Your task to perform on an android device: Open Google Chrome and open the bookmarks view Image 0: 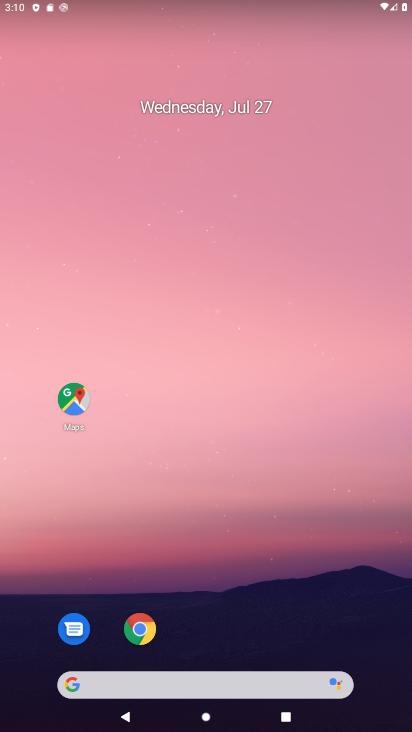
Step 0: press home button
Your task to perform on an android device: Open Google Chrome and open the bookmarks view Image 1: 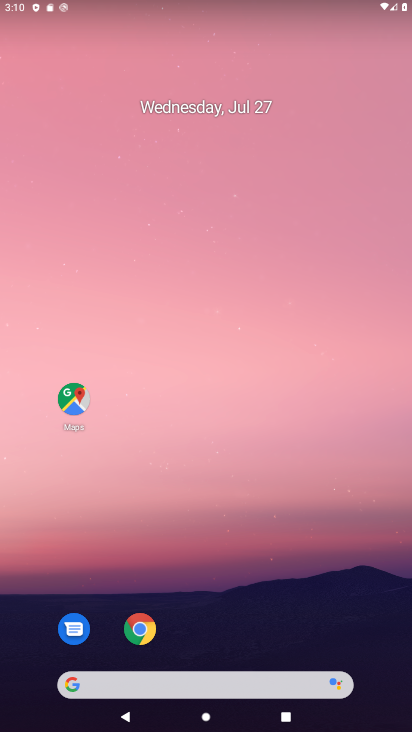
Step 1: click (143, 621)
Your task to perform on an android device: Open Google Chrome and open the bookmarks view Image 2: 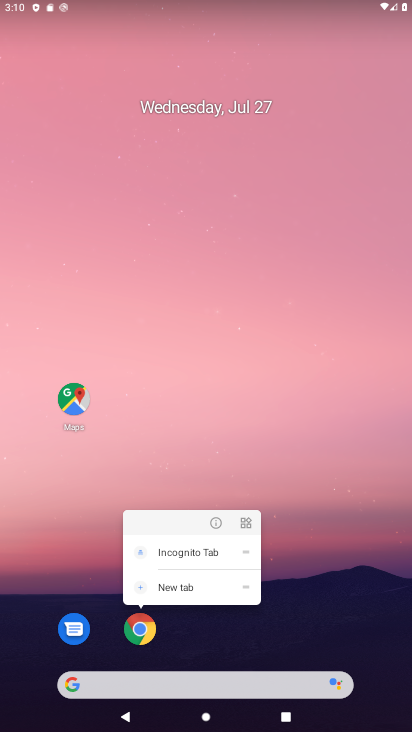
Step 2: click (139, 626)
Your task to perform on an android device: Open Google Chrome and open the bookmarks view Image 3: 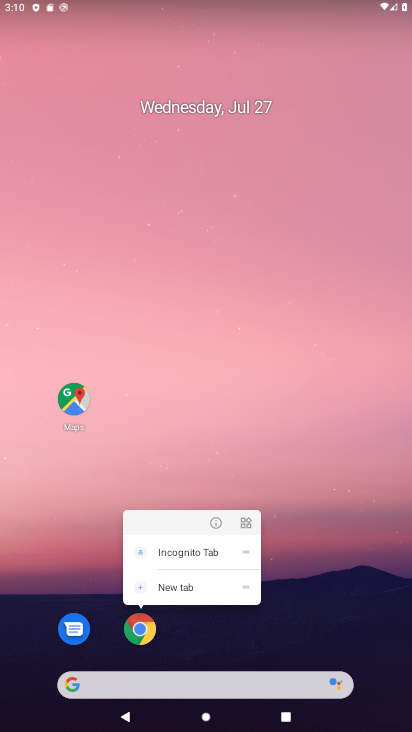
Step 3: click (264, 635)
Your task to perform on an android device: Open Google Chrome and open the bookmarks view Image 4: 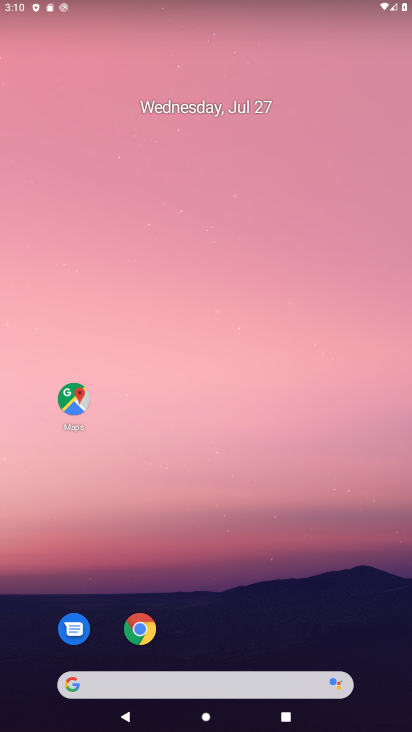
Step 4: drag from (295, 648) to (303, 92)
Your task to perform on an android device: Open Google Chrome and open the bookmarks view Image 5: 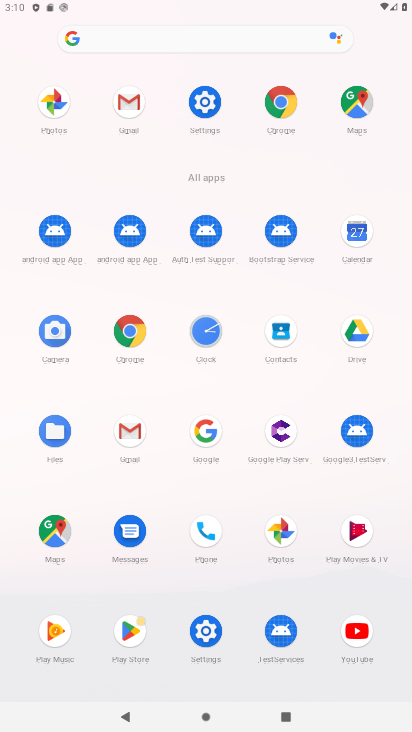
Step 5: click (120, 338)
Your task to perform on an android device: Open Google Chrome and open the bookmarks view Image 6: 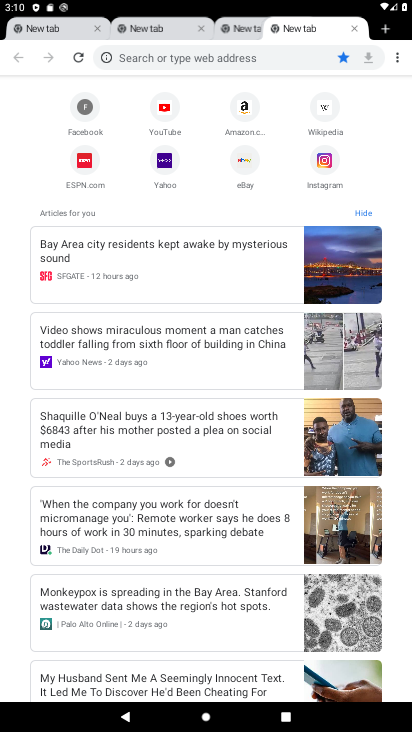
Step 6: click (395, 55)
Your task to perform on an android device: Open Google Chrome and open the bookmarks view Image 7: 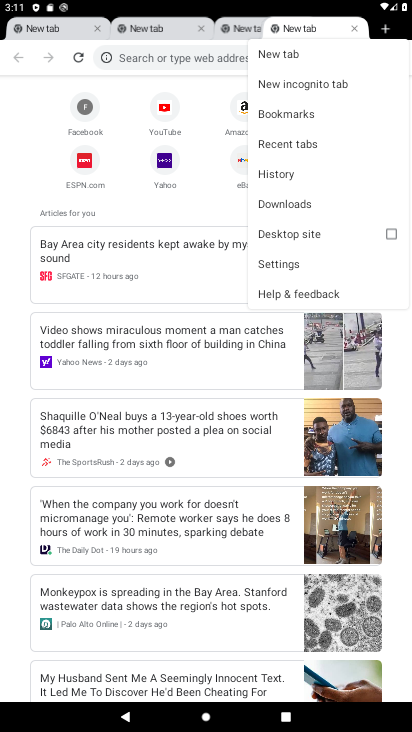
Step 7: click (303, 114)
Your task to perform on an android device: Open Google Chrome and open the bookmarks view Image 8: 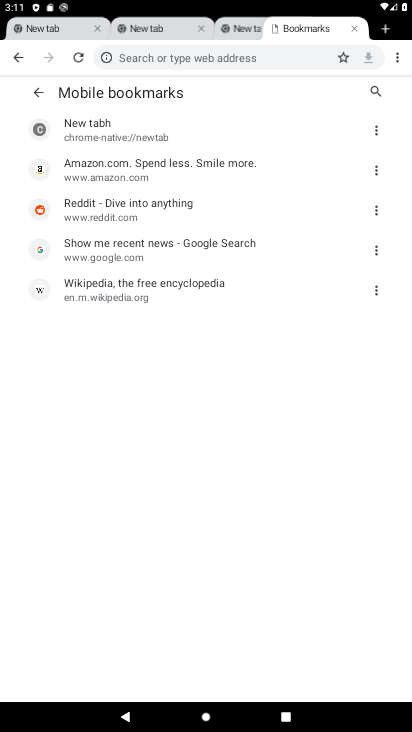
Step 8: task complete